Your task to perform on an android device: Open Google Image 0: 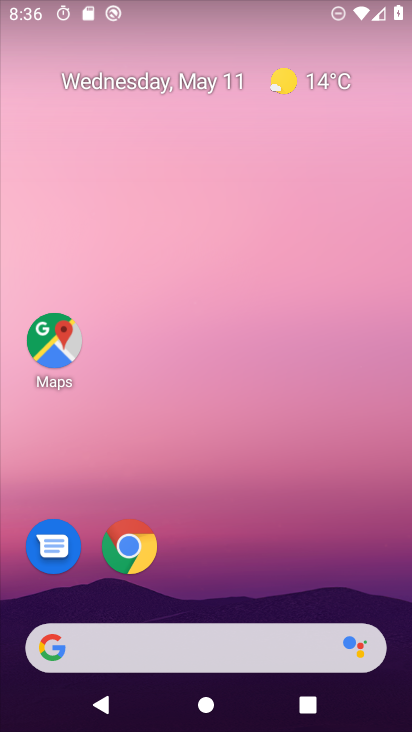
Step 0: drag from (201, 643) to (163, 210)
Your task to perform on an android device: Open Google Image 1: 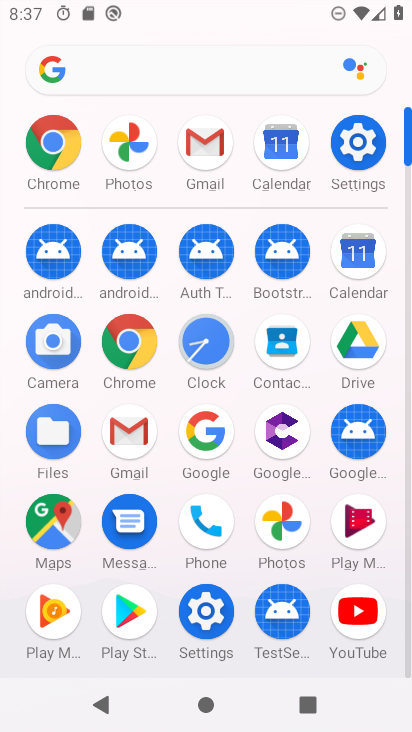
Step 1: click (219, 436)
Your task to perform on an android device: Open Google Image 2: 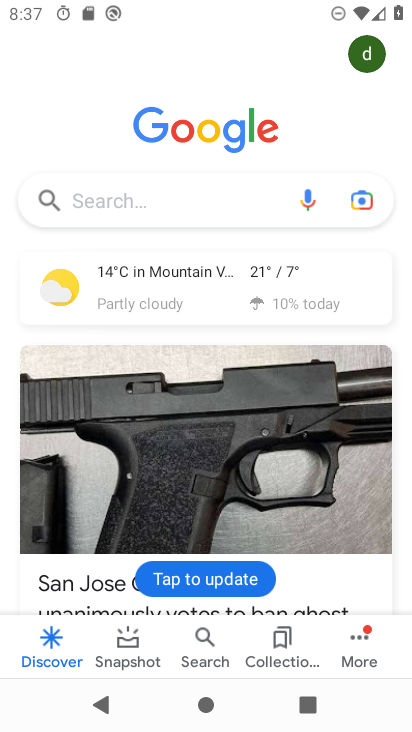
Step 2: task complete